Your task to perform on an android device: Open the map Image 0: 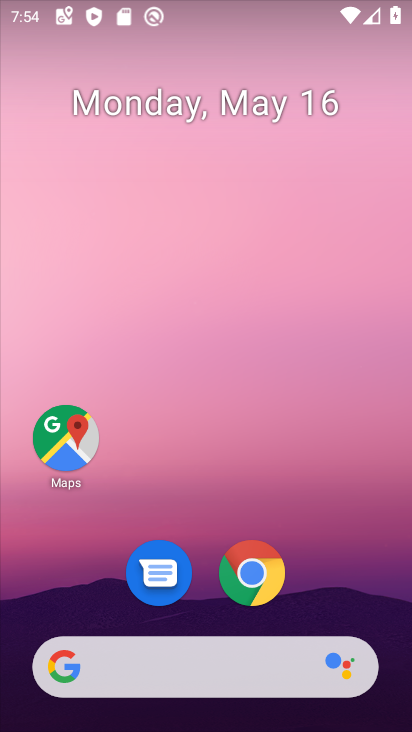
Step 0: drag from (327, 548) to (159, 16)
Your task to perform on an android device: Open the map Image 1: 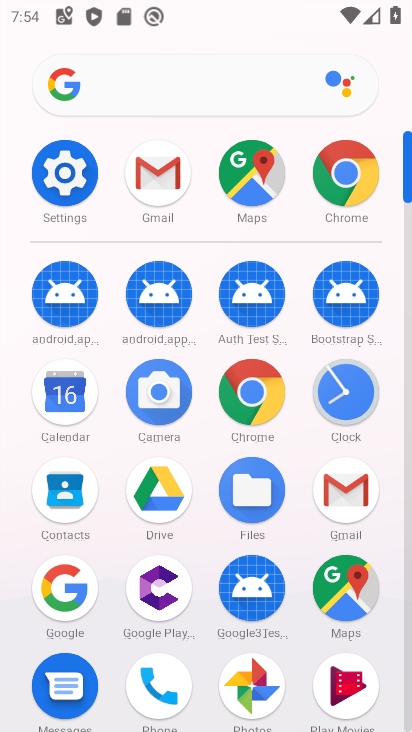
Step 1: click (240, 216)
Your task to perform on an android device: Open the map Image 2: 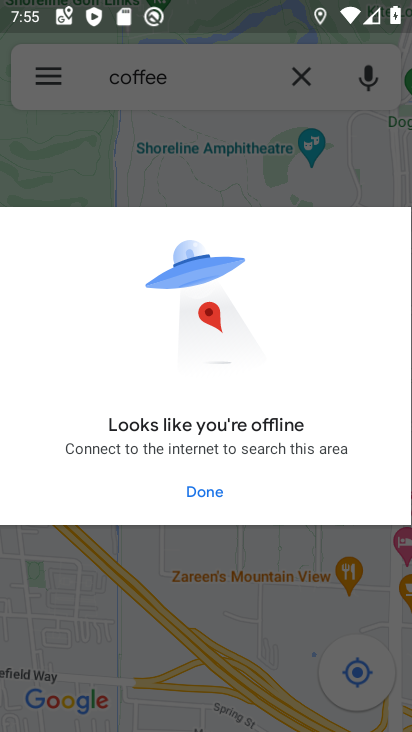
Step 2: click (204, 502)
Your task to perform on an android device: Open the map Image 3: 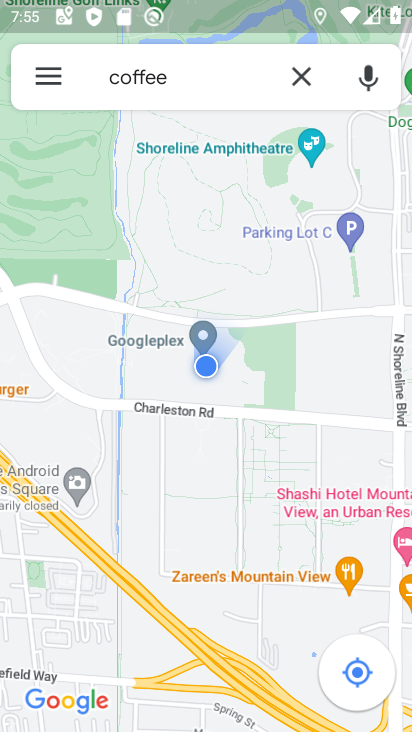
Step 3: task complete